Your task to perform on an android device: Open Reddit.com Image 0: 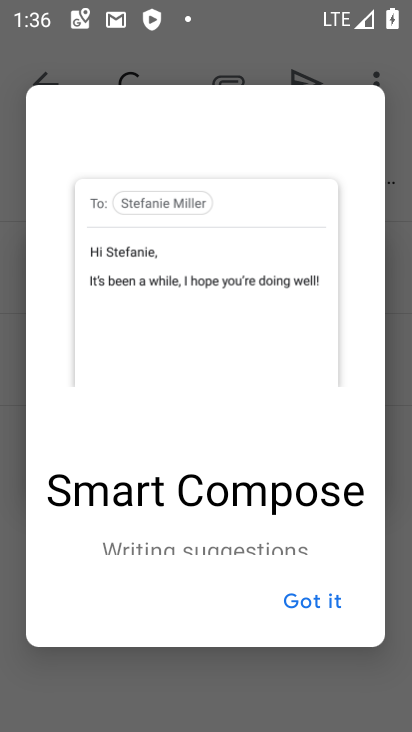
Step 0: press home button
Your task to perform on an android device: Open Reddit.com Image 1: 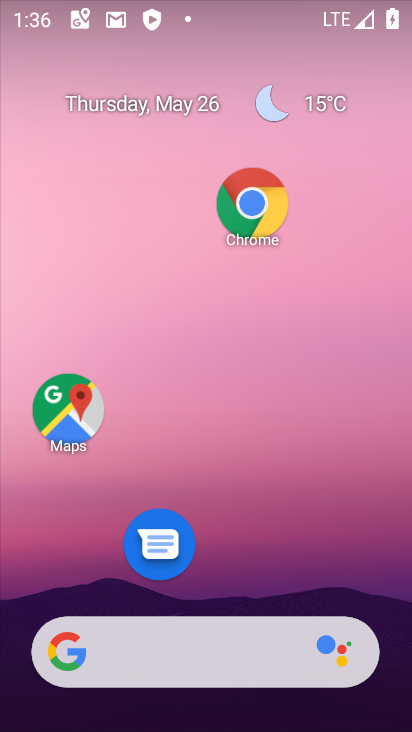
Step 1: click (208, 658)
Your task to perform on an android device: Open Reddit.com Image 2: 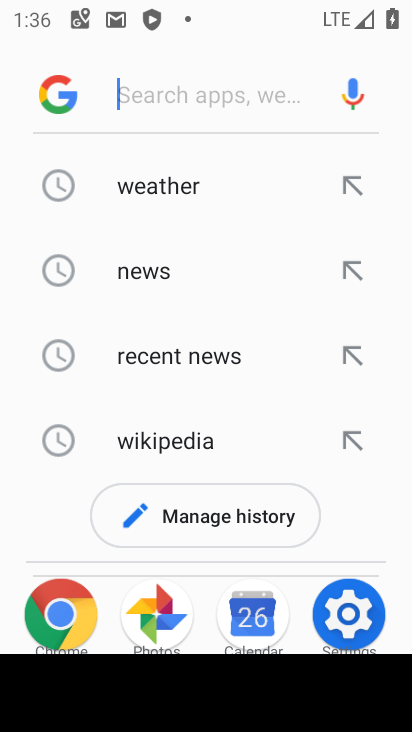
Step 2: type "reddit.com"
Your task to perform on an android device: Open Reddit.com Image 3: 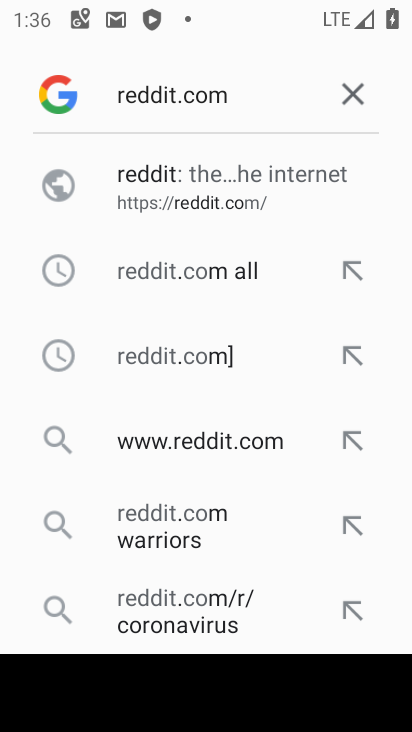
Step 3: click (280, 197)
Your task to perform on an android device: Open Reddit.com Image 4: 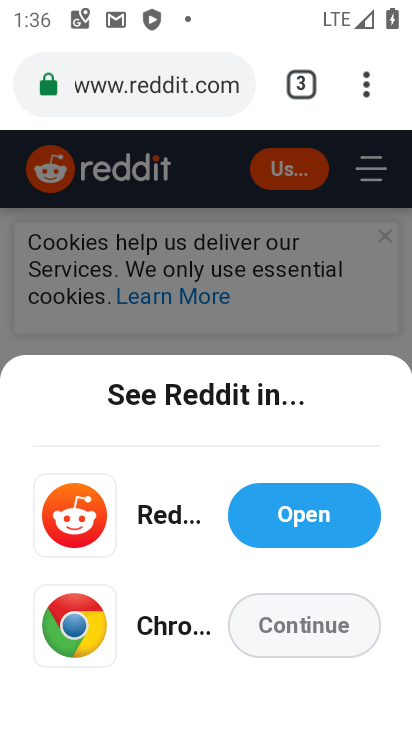
Step 4: task complete